Your task to perform on an android device: Go to privacy settings Image 0: 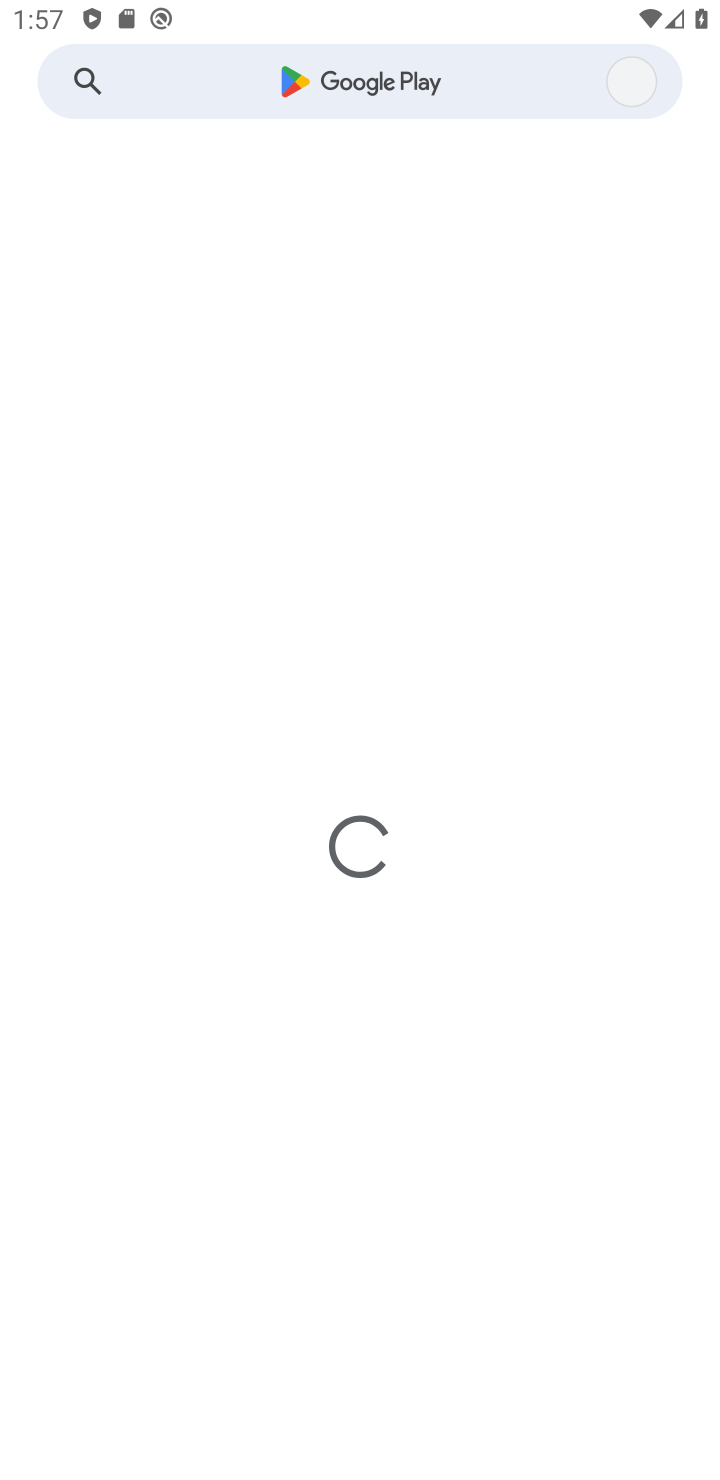
Step 0: press home button
Your task to perform on an android device: Go to privacy settings Image 1: 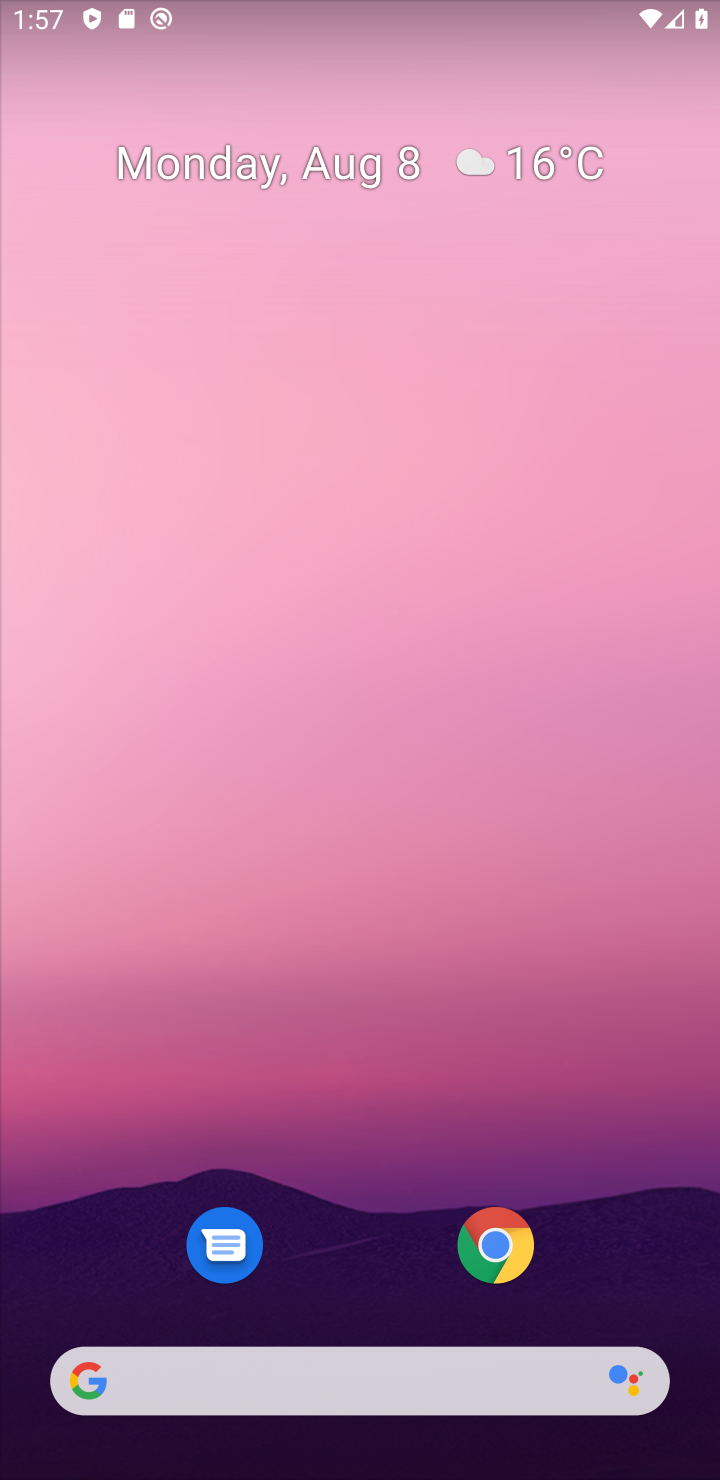
Step 1: drag from (331, 1130) to (396, 116)
Your task to perform on an android device: Go to privacy settings Image 2: 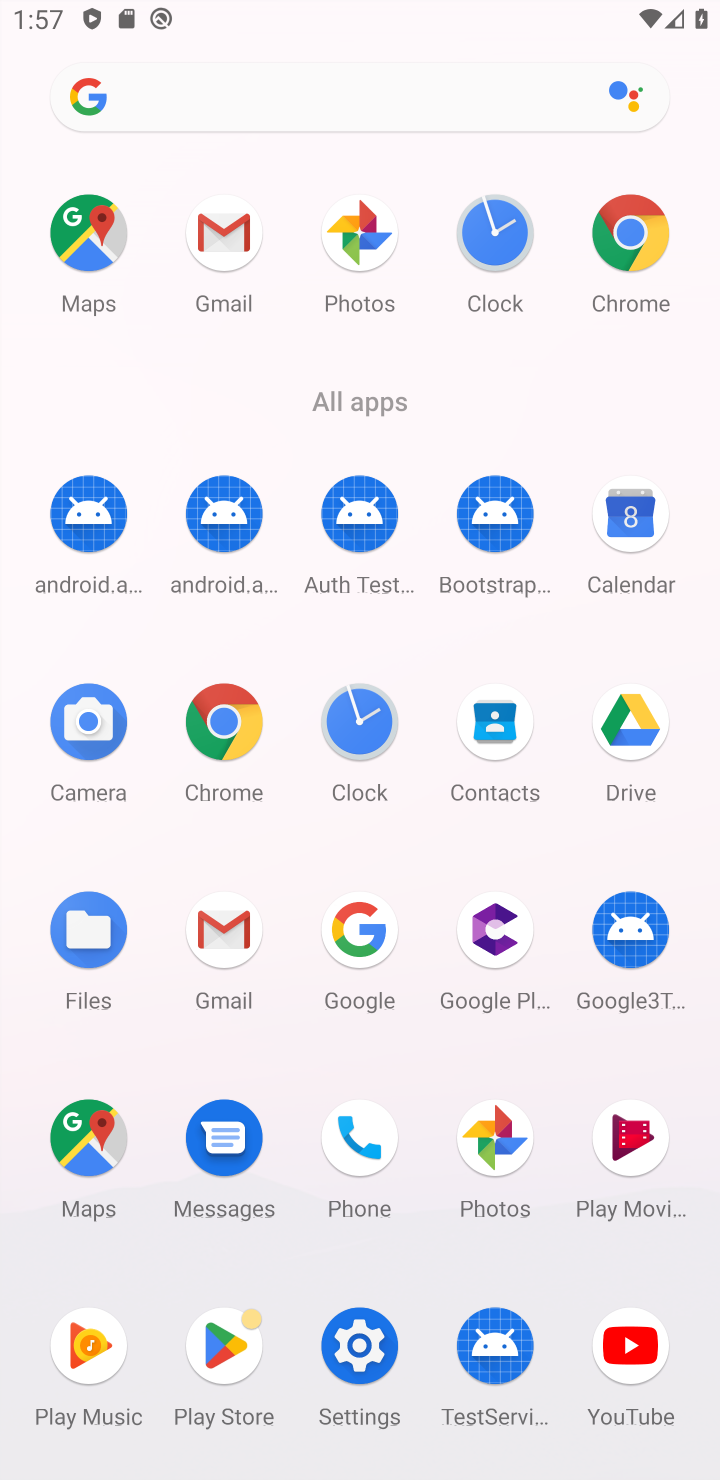
Step 2: click (360, 1347)
Your task to perform on an android device: Go to privacy settings Image 3: 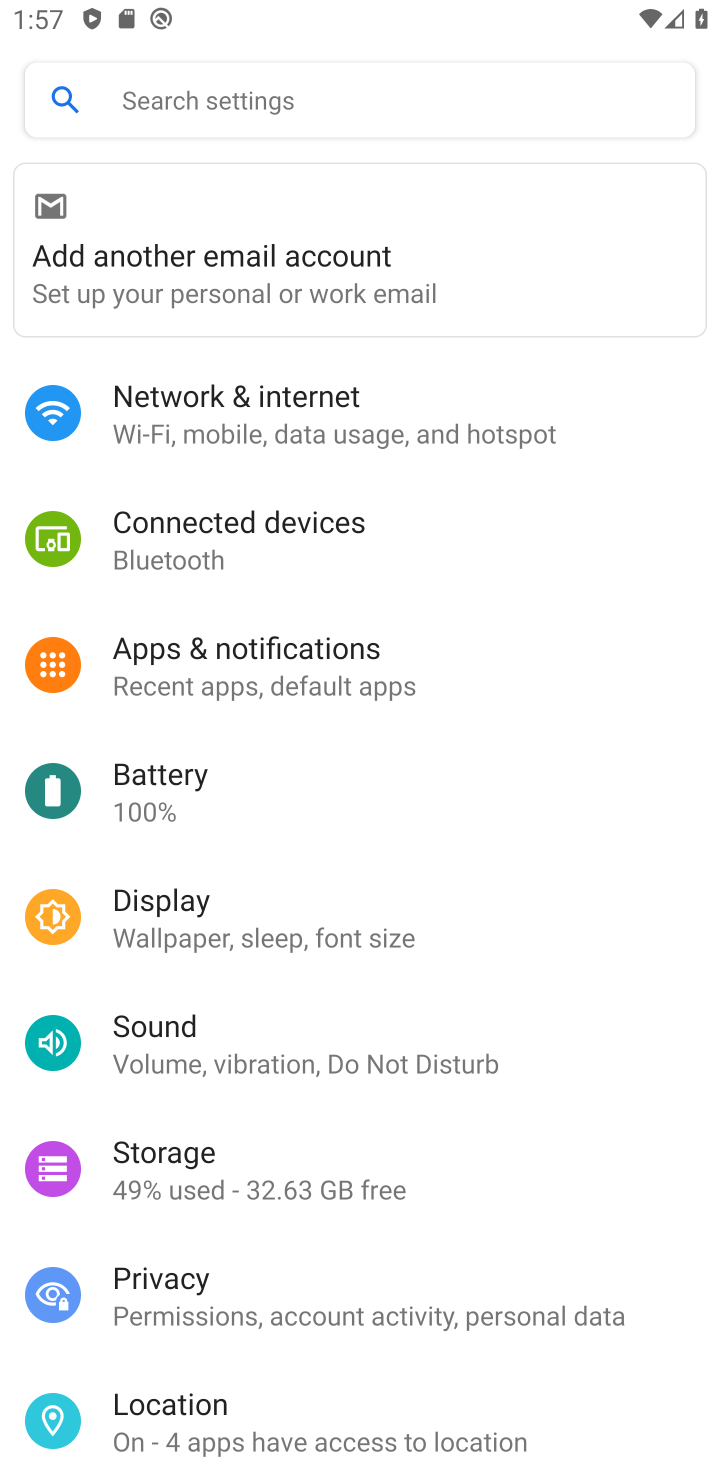
Step 3: click (182, 1273)
Your task to perform on an android device: Go to privacy settings Image 4: 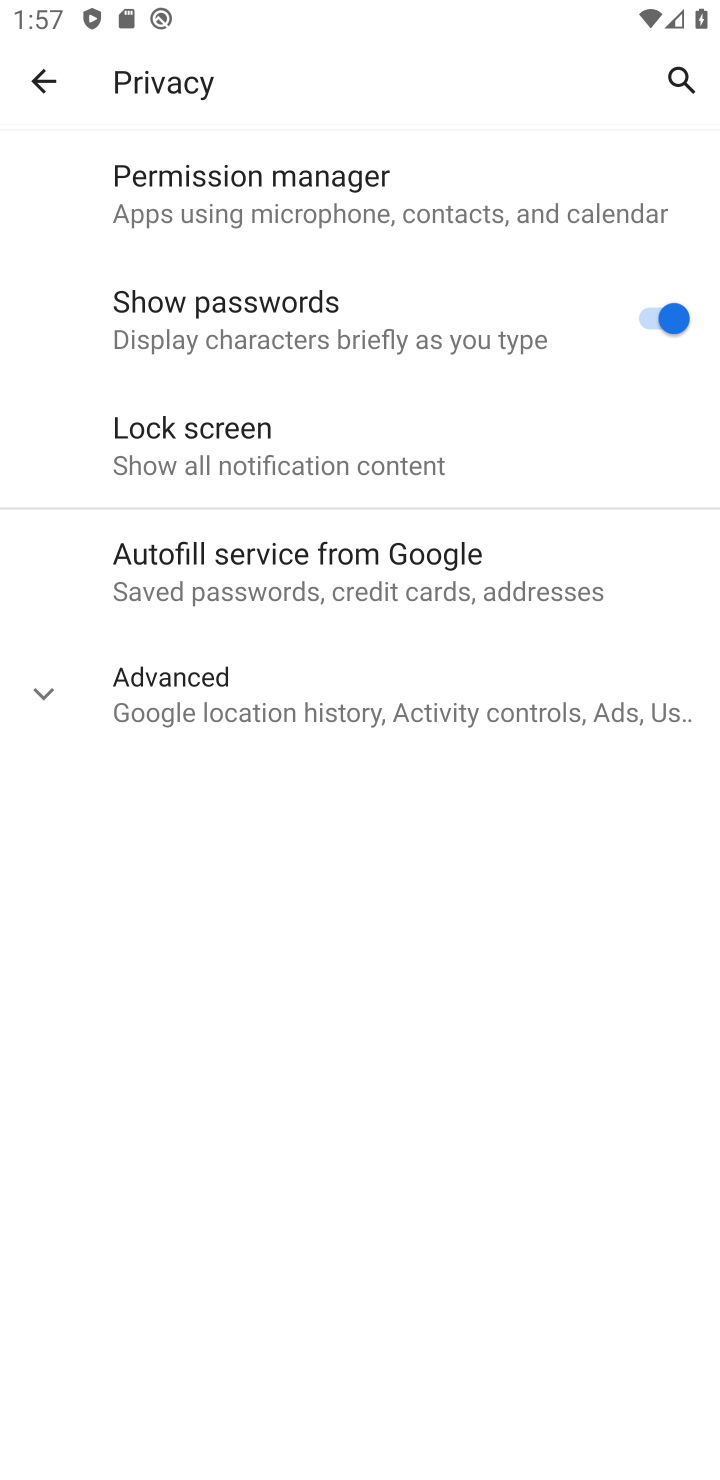
Step 4: task complete